Your task to perform on an android device: toggle improve location accuracy Image 0: 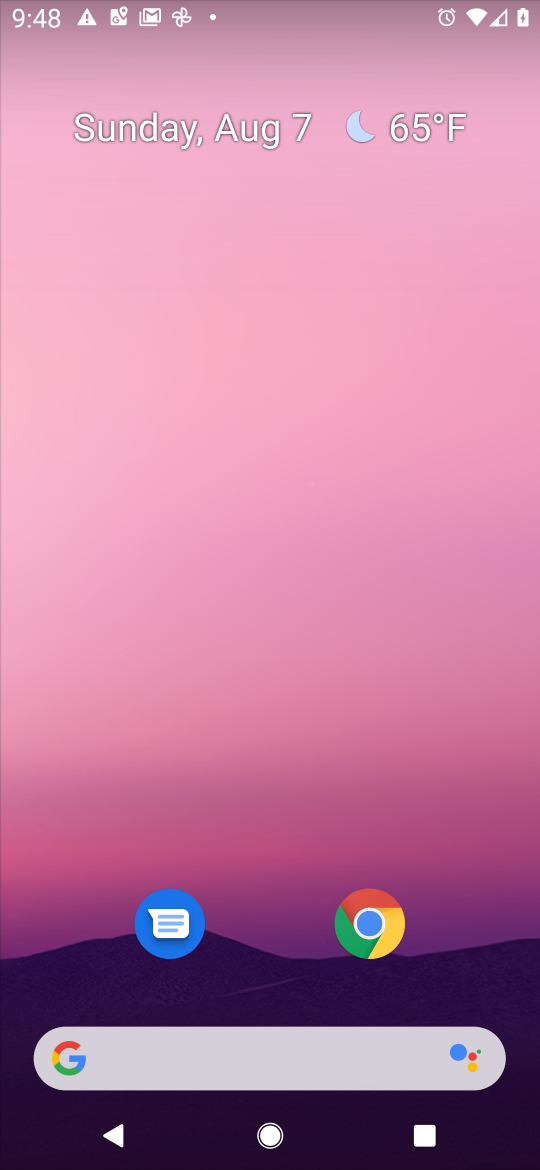
Step 0: drag from (500, 992) to (262, 101)
Your task to perform on an android device: toggle improve location accuracy Image 1: 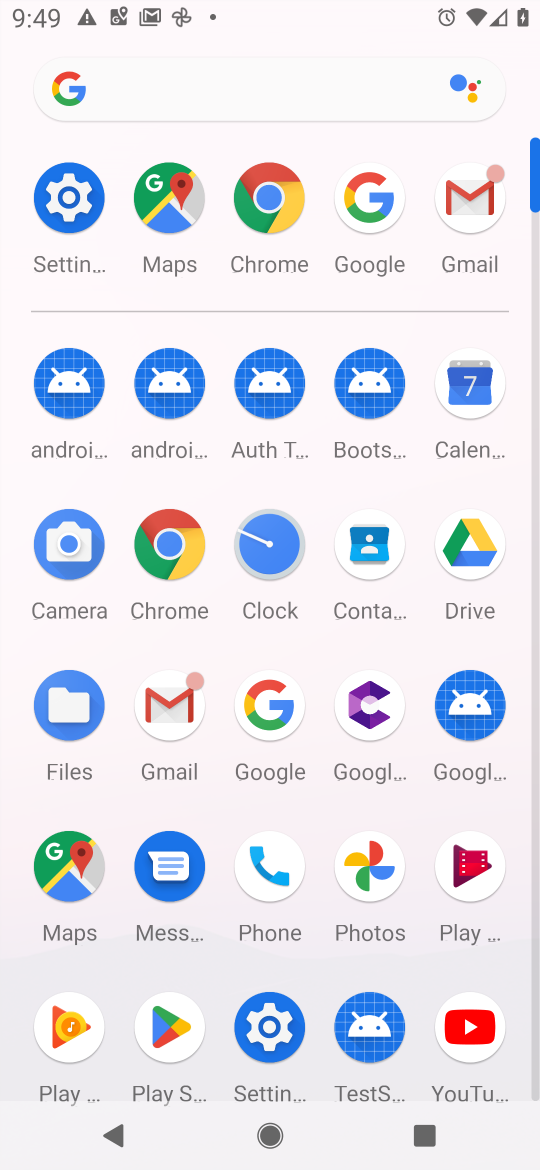
Step 1: click (284, 1038)
Your task to perform on an android device: toggle improve location accuracy Image 2: 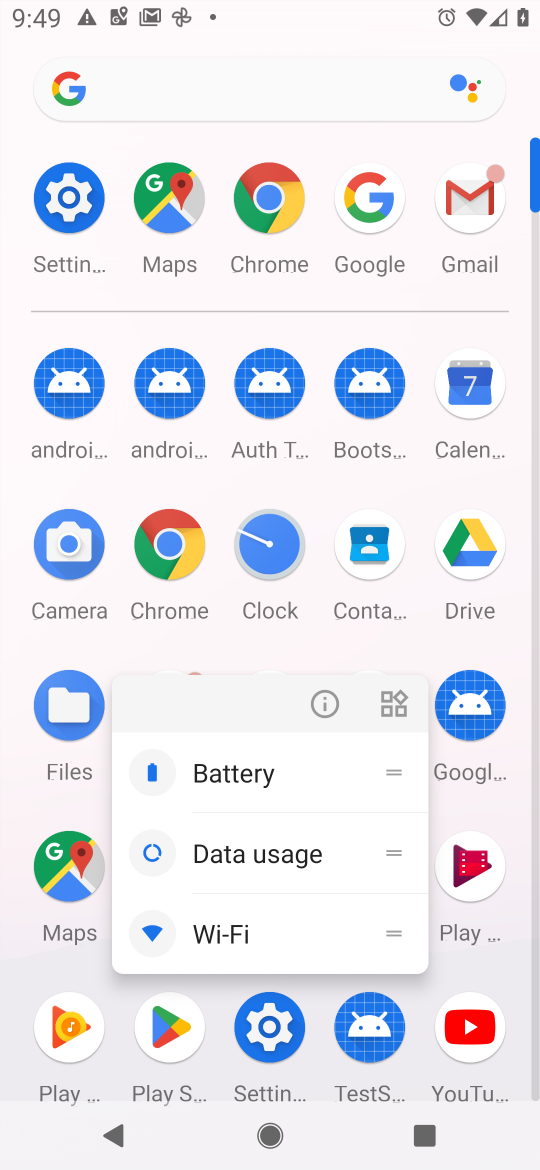
Step 2: click (263, 1047)
Your task to perform on an android device: toggle improve location accuracy Image 3: 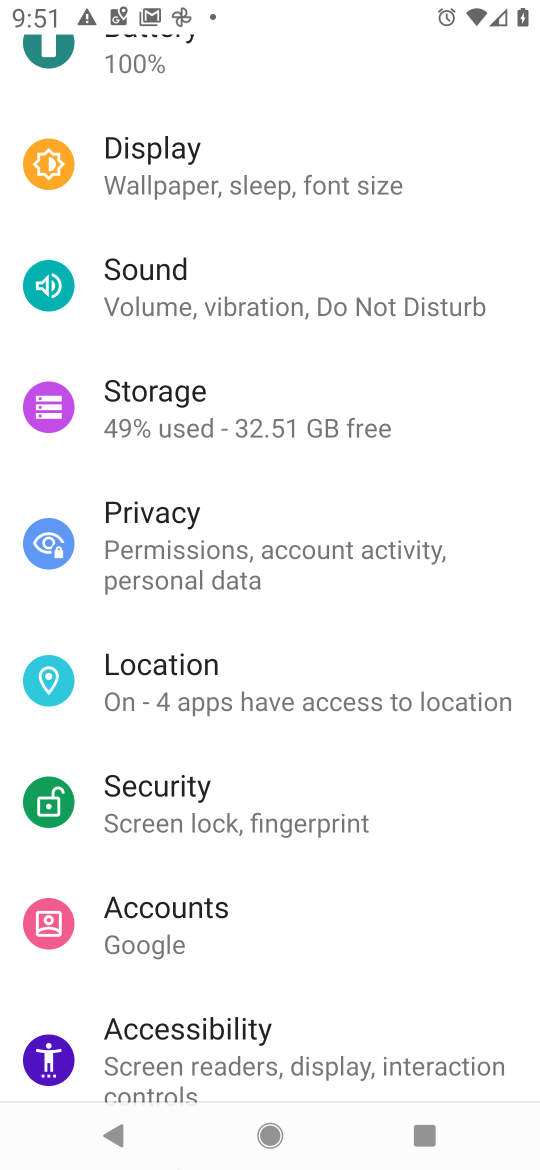
Step 3: click (147, 673)
Your task to perform on an android device: toggle improve location accuracy Image 4: 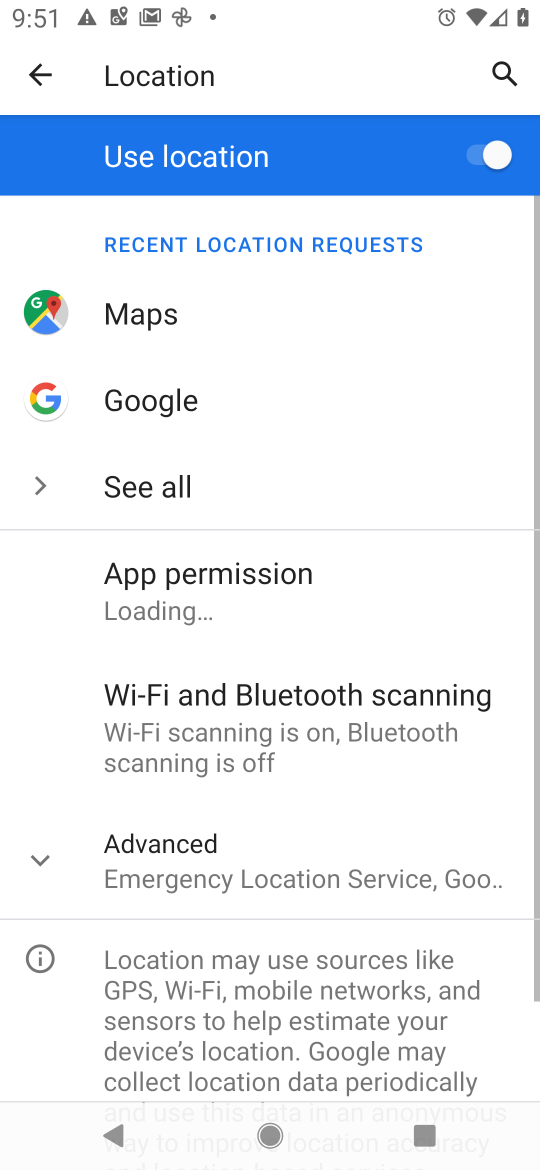
Step 4: click (213, 845)
Your task to perform on an android device: toggle improve location accuracy Image 5: 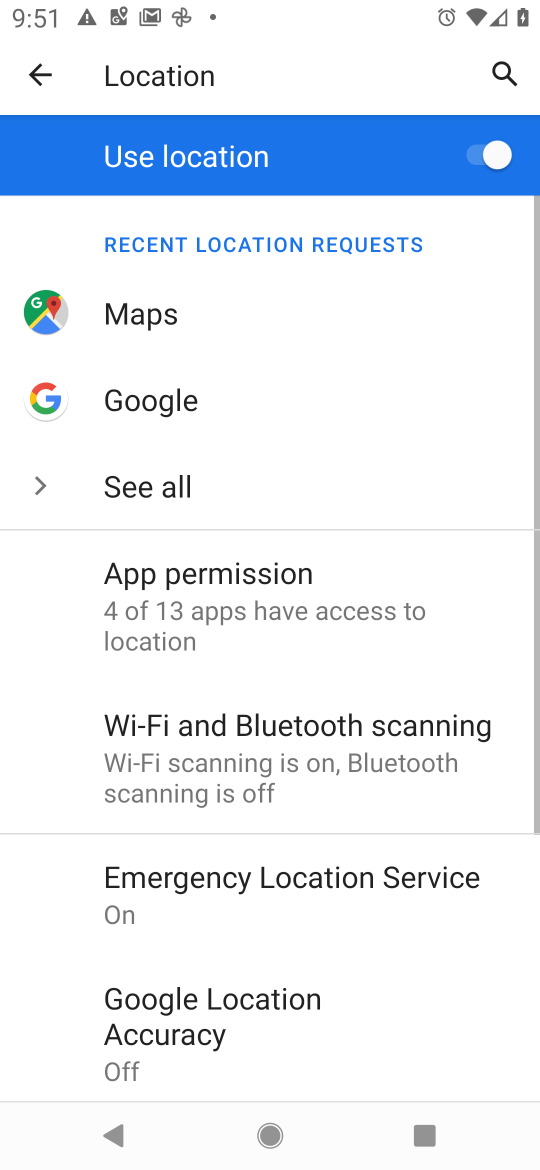
Step 5: click (206, 1020)
Your task to perform on an android device: toggle improve location accuracy Image 6: 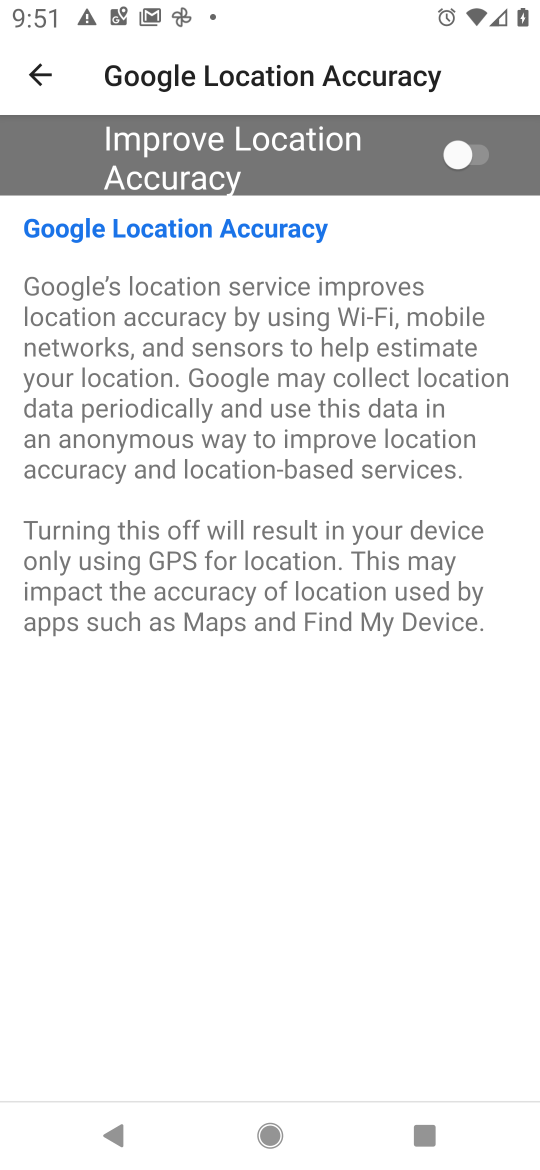
Step 6: click (461, 156)
Your task to perform on an android device: toggle improve location accuracy Image 7: 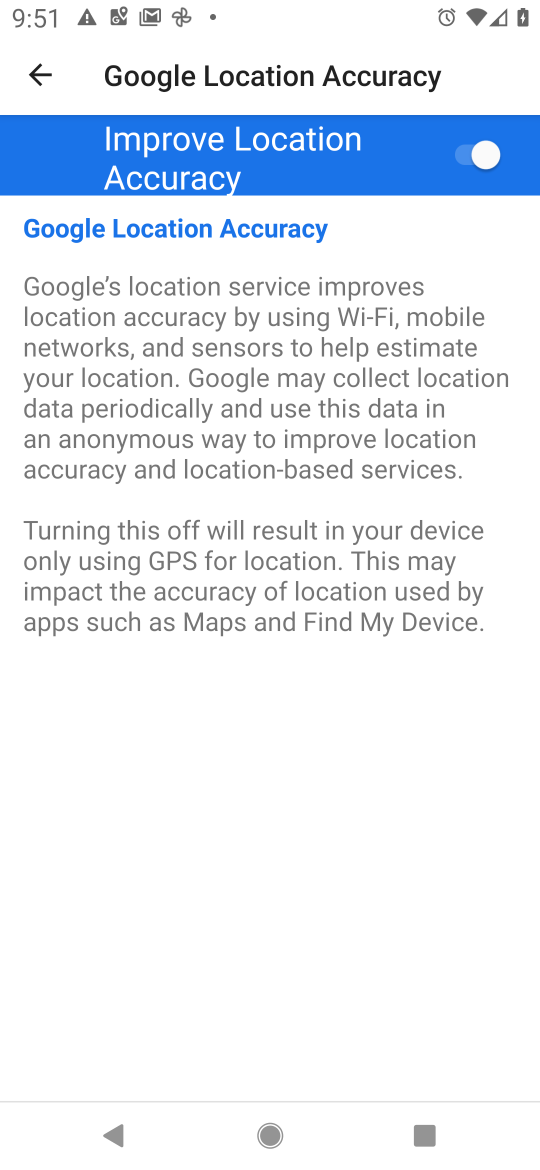
Step 7: task complete